Your task to perform on an android device: Open the stopwatch Image 0: 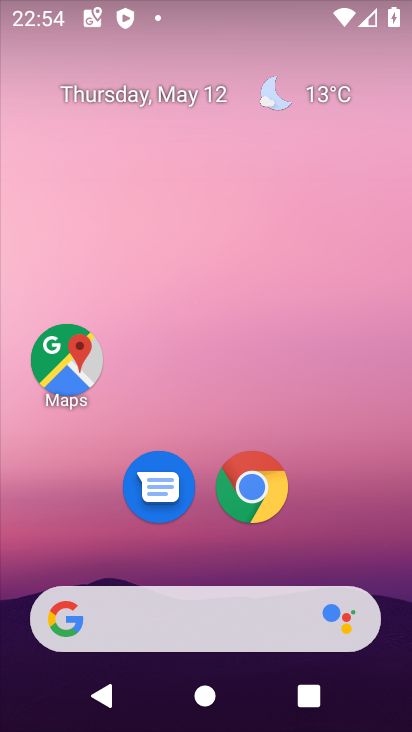
Step 0: click (208, 580)
Your task to perform on an android device: Open the stopwatch Image 1: 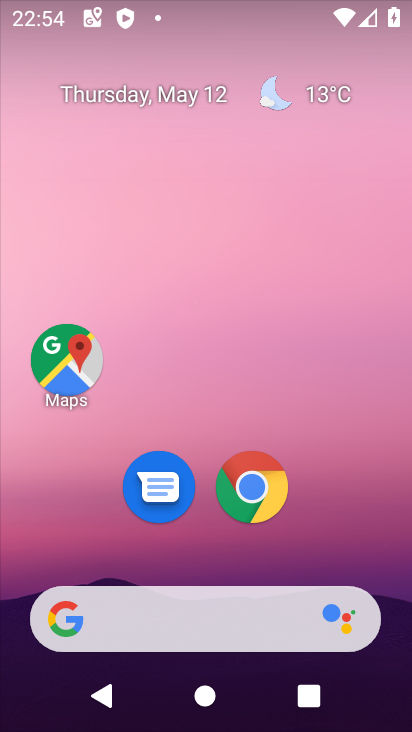
Step 1: drag from (192, 557) to (182, 1)
Your task to perform on an android device: Open the stopwatch Image 2: 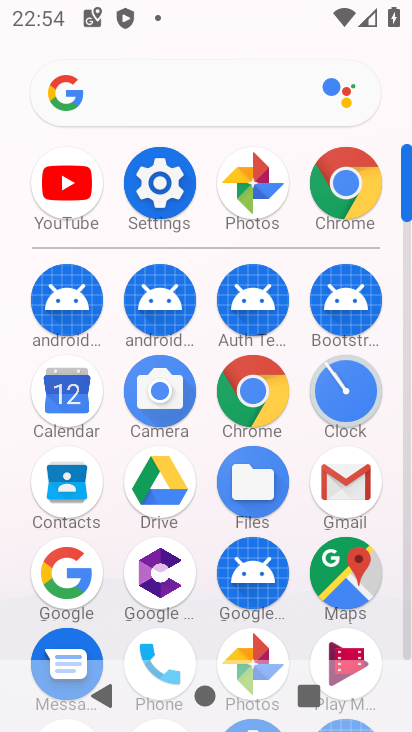
Step 2: click (335, 404)
Your task to perform on an android device: Open the stopwatch Image 3: 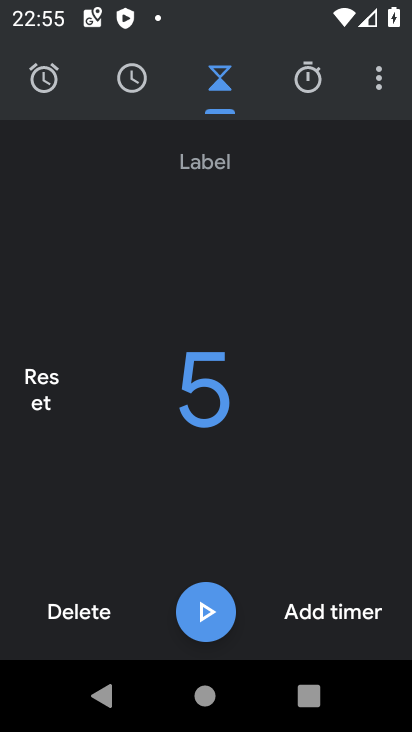
Step 3: click (326, 93)
Your task to perform on an android device: Open the stopwatch Image 4: 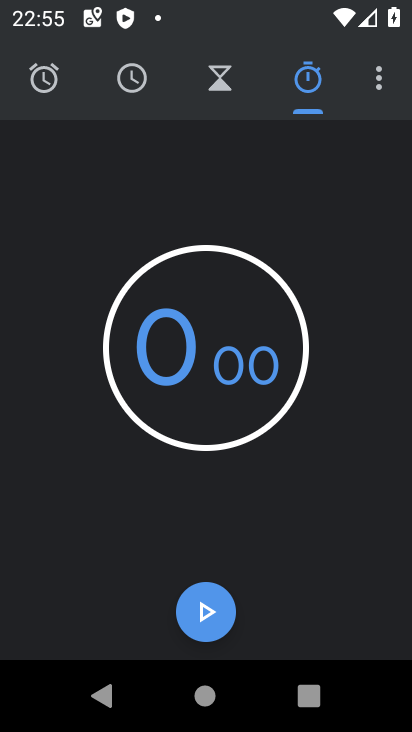
Step 4: task complete